Your task to perform on an android device: Go to CNN.com Image 0: 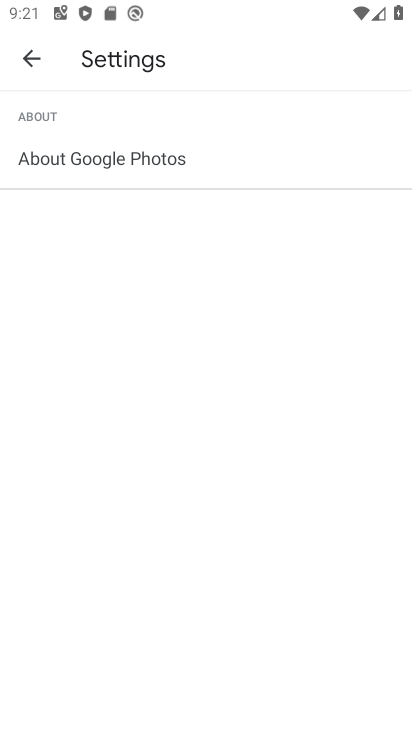
Step 0: press home button
Your task to perform on an android device: Go to CNN.com Image 1: 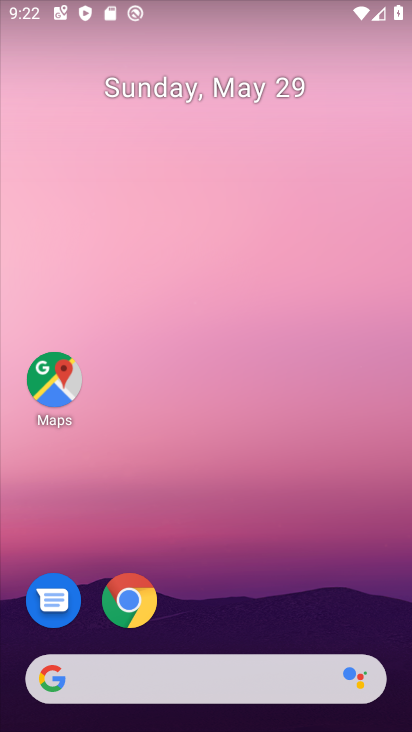
Step 1: click (129, 604)
Your task to perform on an android device: Go to CNN.com Image 2: 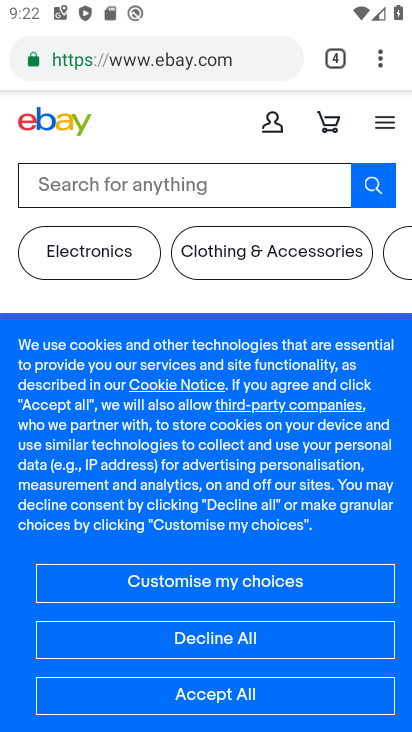
Step 2: click (381, 62)
Your task to perform on an android device: Go to CNN.com Image 3: 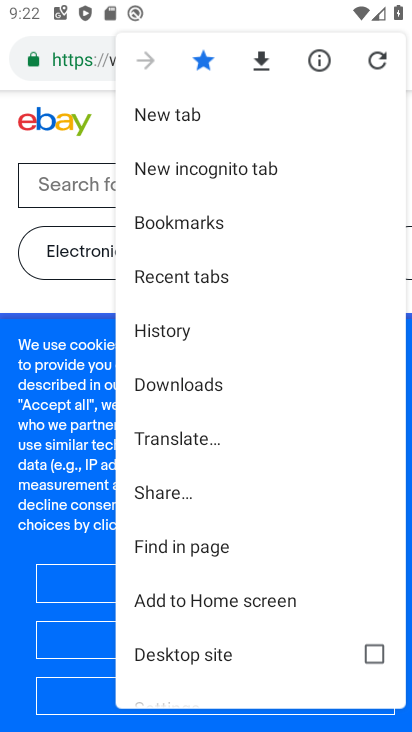
Step 3: click (170, 116)
Your task to perform on an android device: Go to CNN.com Image 4: 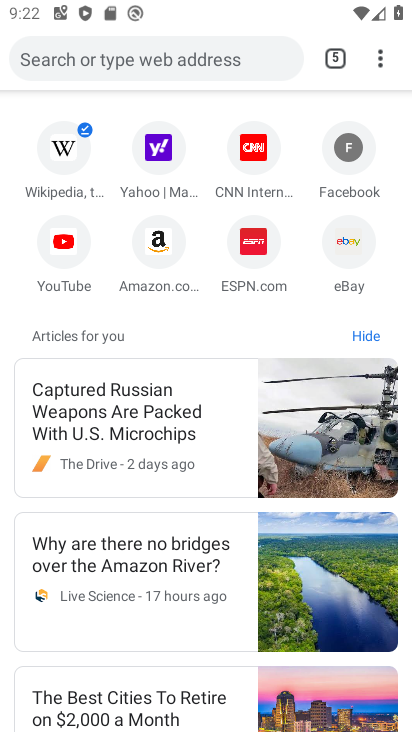
Step 4: click (256, 145)
Your task to perform on an android device: Go to CNN.com Image 5: 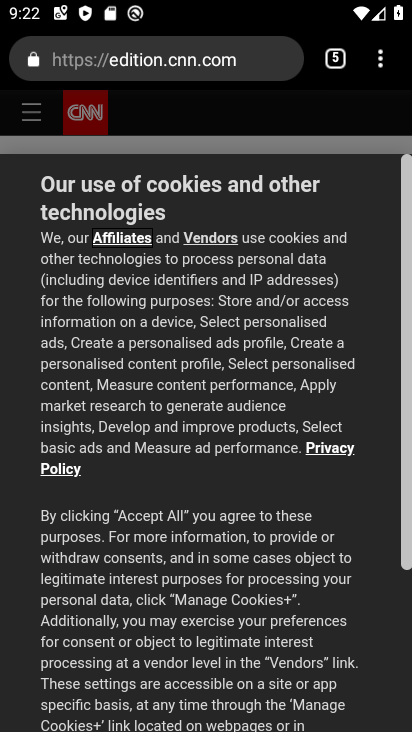
Step 5: task complete